Your task to perform on an android device: open the mobile data screen to see how much data has been used Image 0: 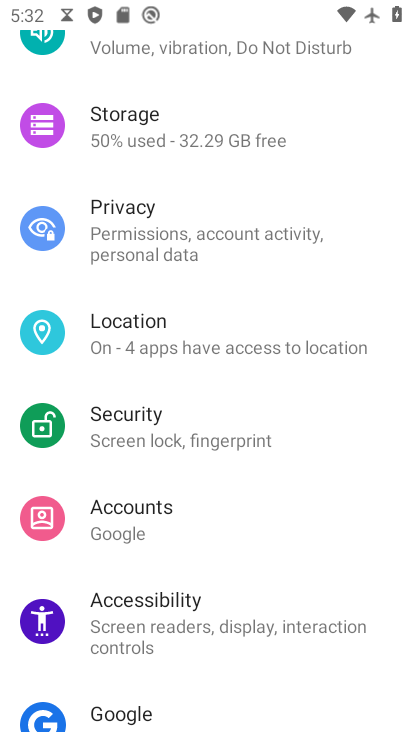
Step 0: press home button
Your task to perform on an android device: open the mobile data screen to see how much data has been used Image 1: 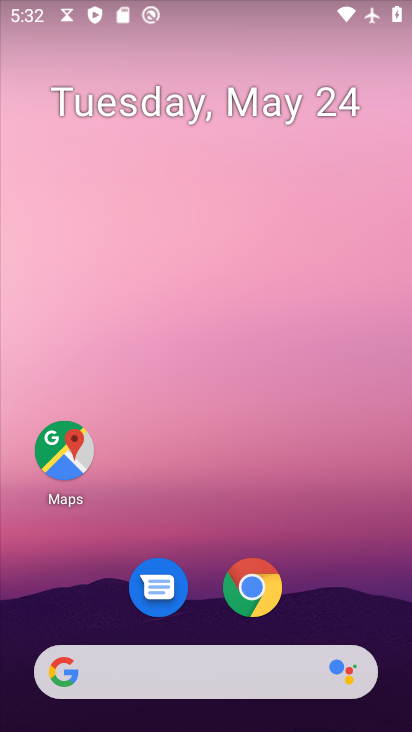
Step 1: drag from (344, 586) to (170, 35)
Your task to perform on an android device: open the mobile data screen to see how much data has been used Image 2: 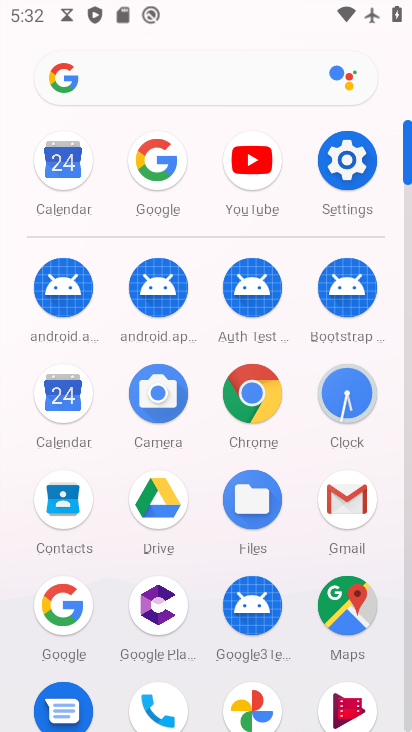
Step 2: click (357, 160)
Your task to perform on an android device: open the mobile data screen to see how much data has been used Image 3: 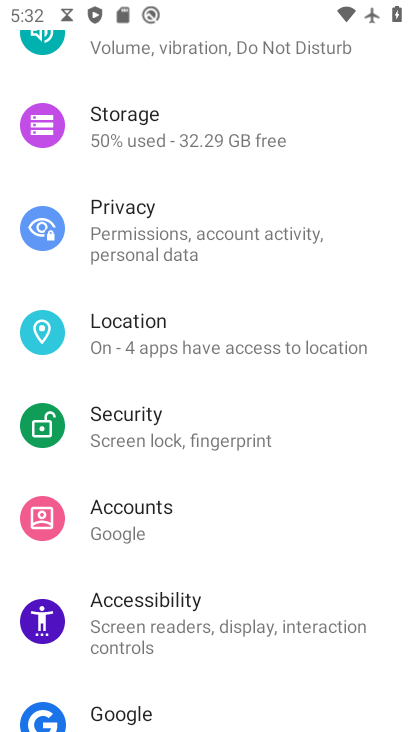
Step 3: drag from (230, 206) to (184, 673)
Your task to perform on an android device: open the mobile data screen to see how much data has been used Image 4: 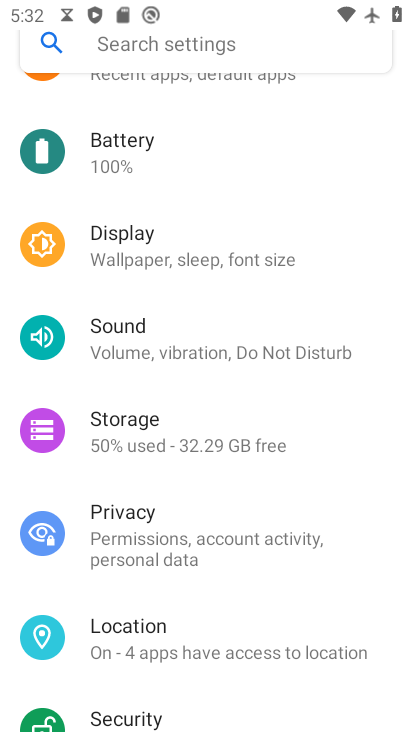
Step 4: drag from (218, 222) to (151, 671)
Your task to perform on an android device: open the mobile data screen to see how much data has been used Image 5: 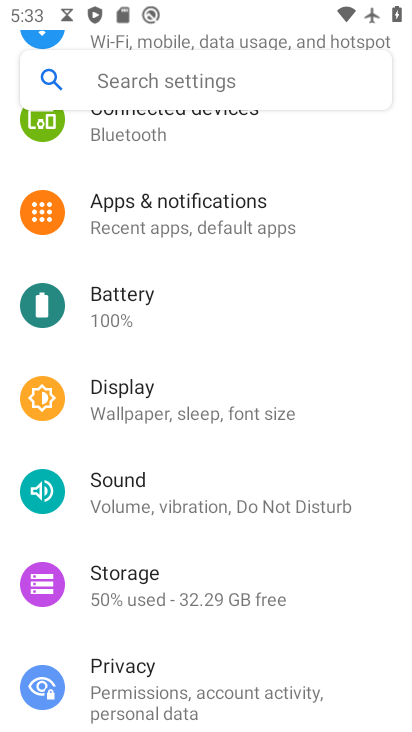
Step 5: drag from (228, 229) to (201, 650)
Your task to perform on an android device: open the mobile data screen to see how much data has been used Image 6: 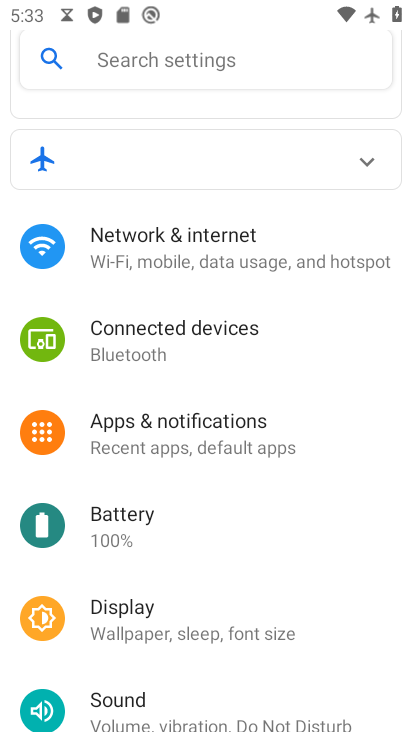
Step 6: click (239, 237)
Your task to perform on an android device: open the mobile data screen to see how much data has been used Image 7: 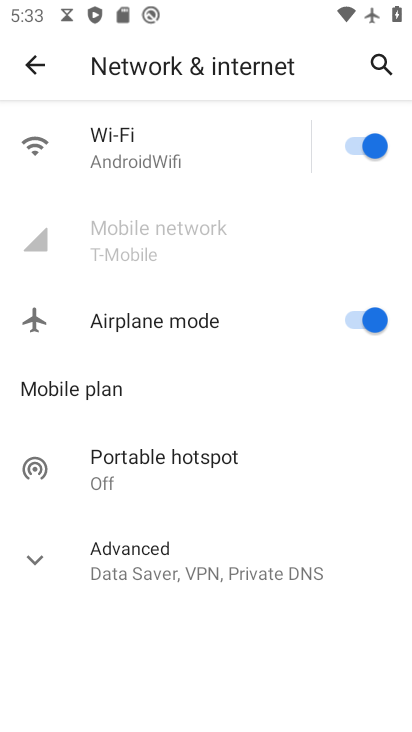
Step 7: click (204, 252)
Your task to perform on an android device: open the mobile data screen to see how much data has been used Image 8: 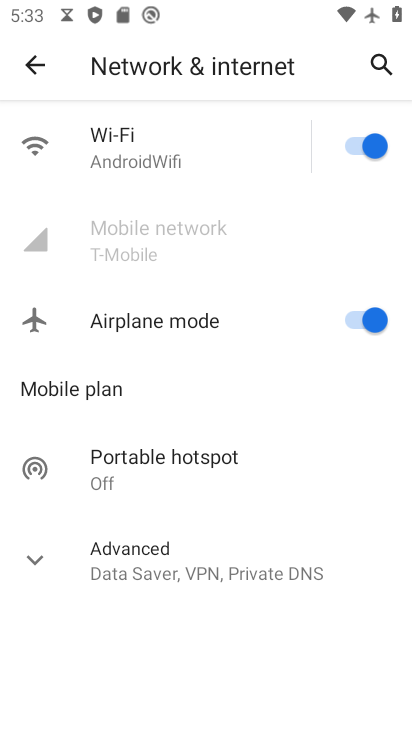
Step 8: task complete